Your task to perform on an android device: Go to Yahoo.com Image 0: 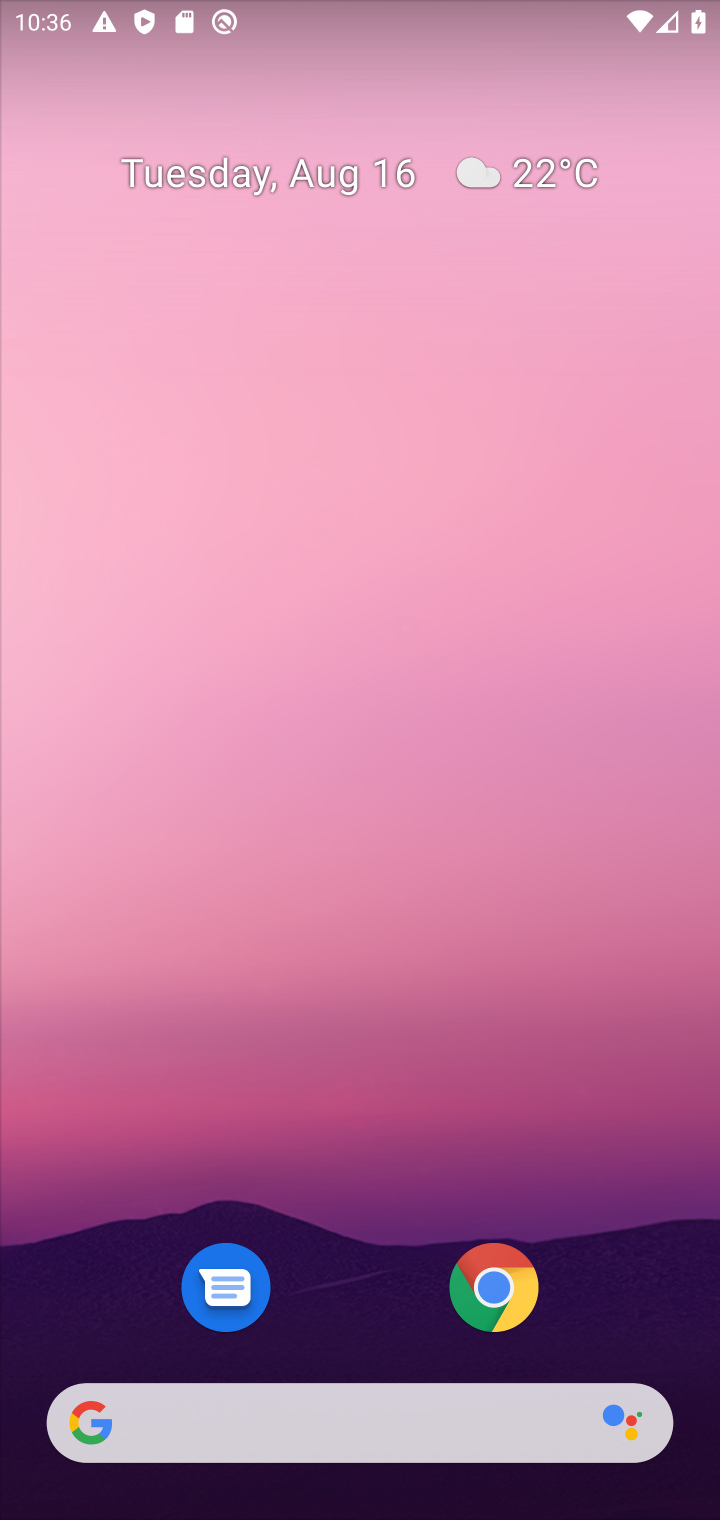
Step 0: click (496, 1296)
Your task to perform on an android device: Go to Yahoo.com Image 1: 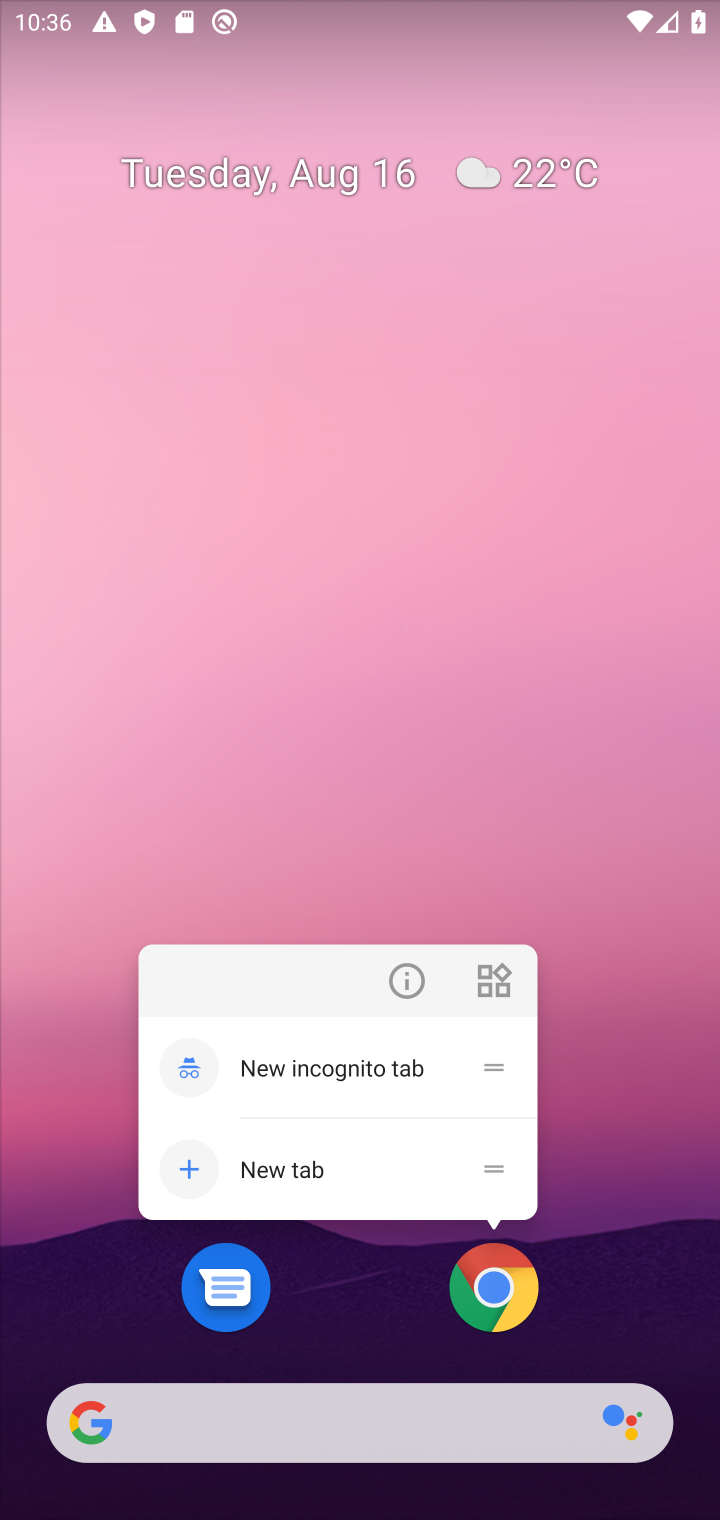
Step 1: click (491, 1295)
Your task to perform on an android device: Go to Yahoo.com Image 2: 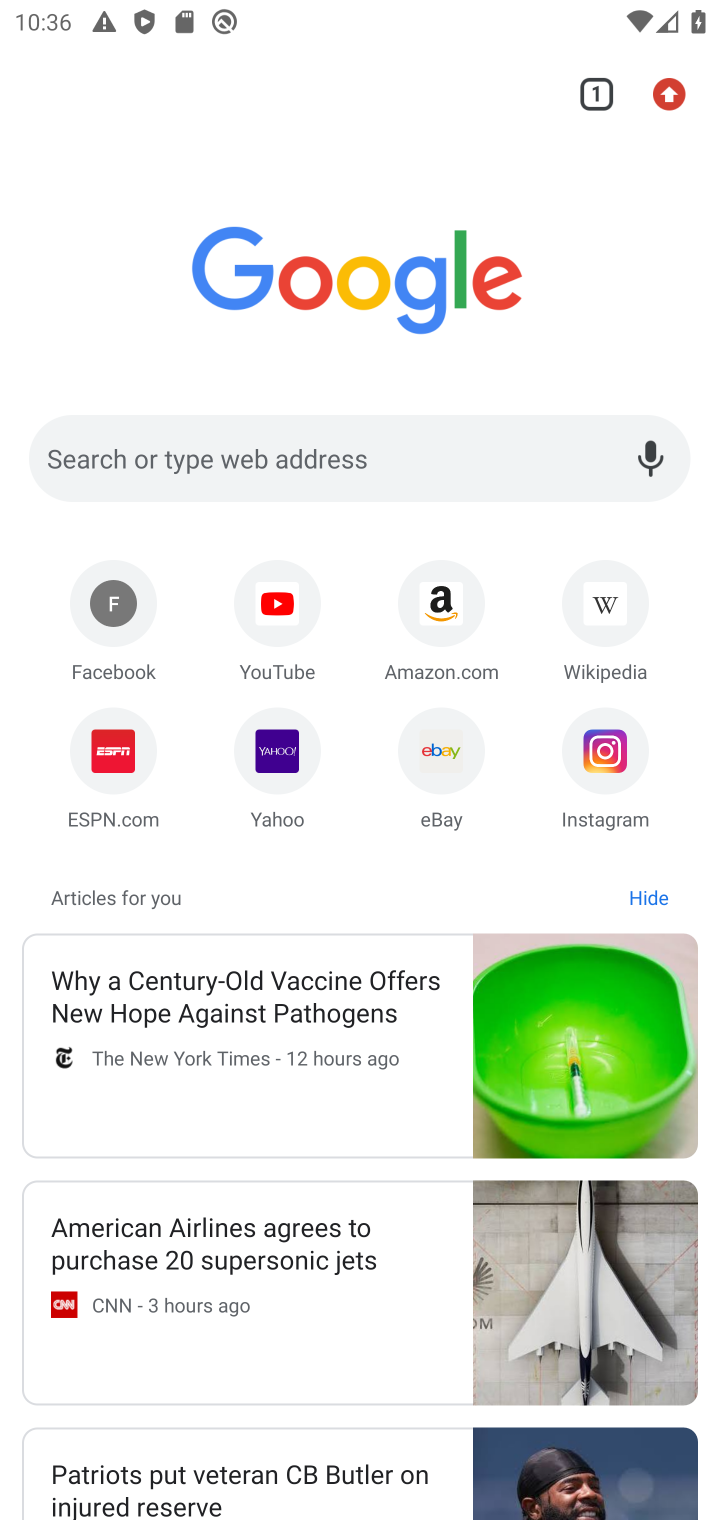
Step 2: click (269, 443)
Your task to perform on an android device: Go to Yahoo.com Image 3: 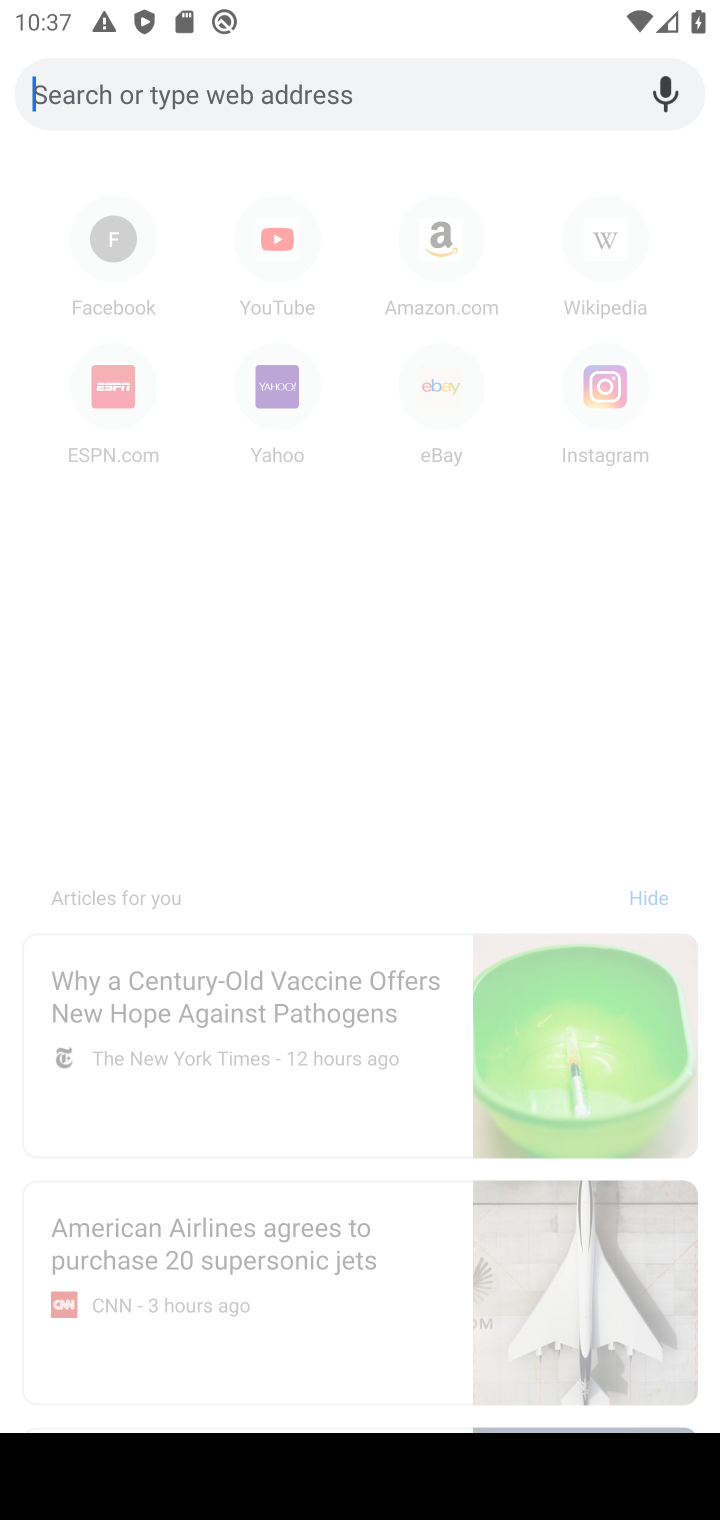
Step 3: type "yahoo.com"
Your task to perform on an android device: Go to Yahoo.com Image 4: 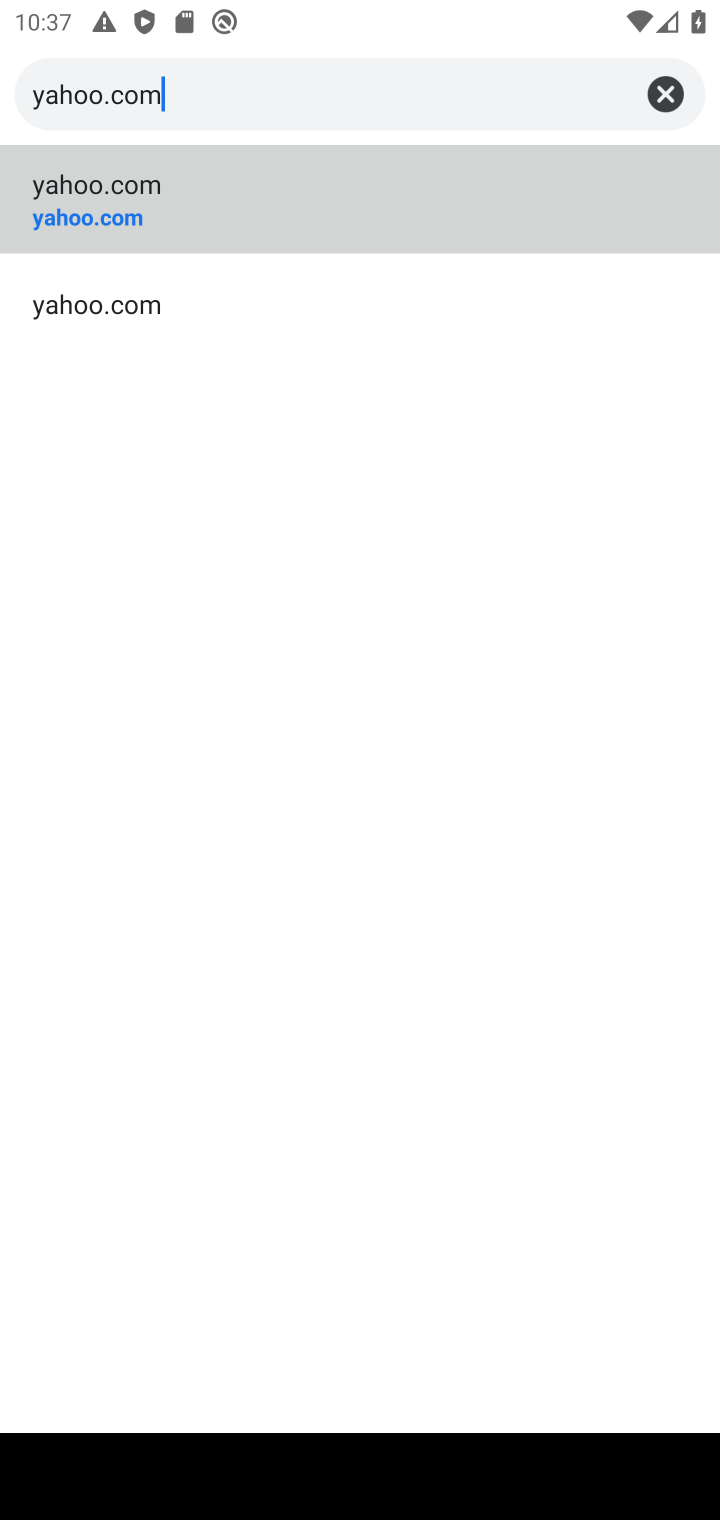
Step 4: click (115, 178)
Your task to perform on an android device: Go to Yahoo.com Image 5: 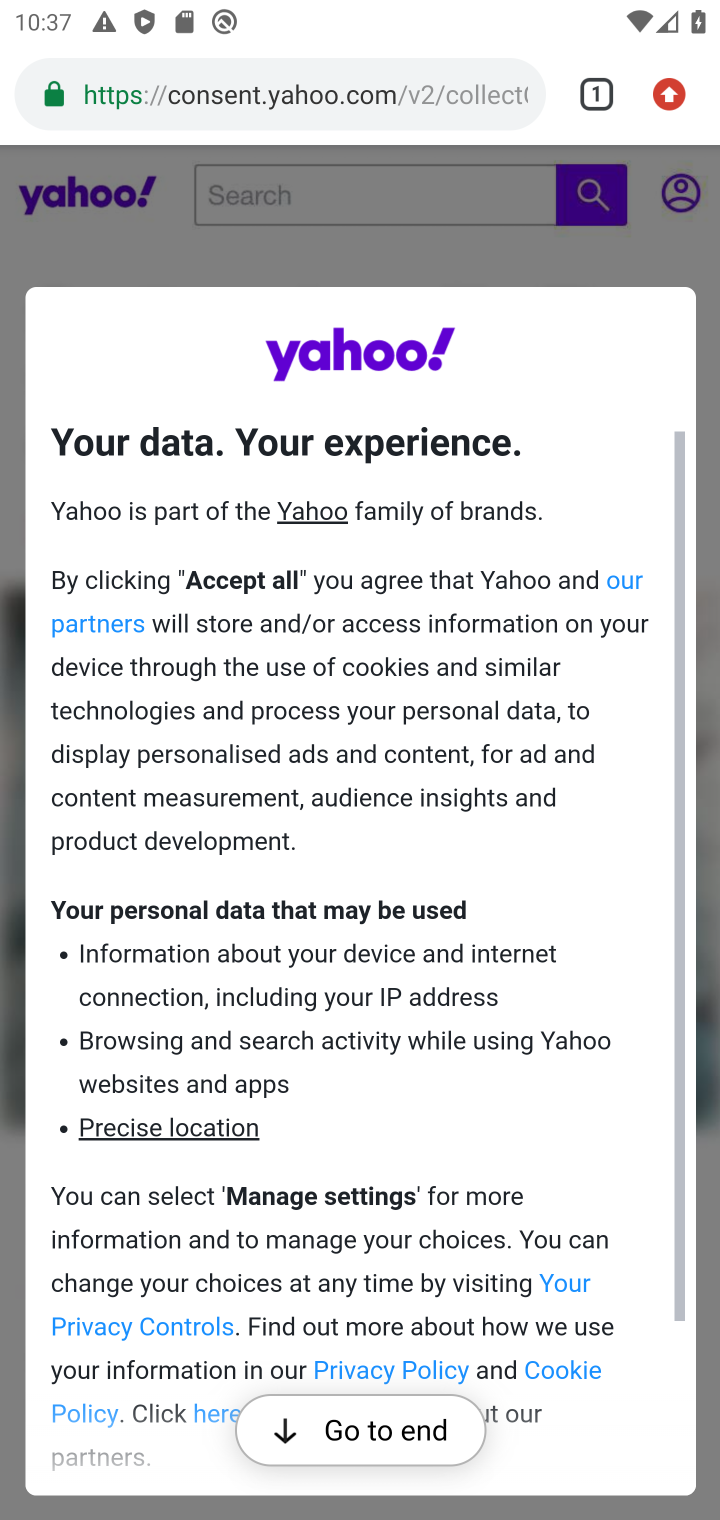
Step 5: click (324, 1421)
Your task to perform on an android device: Go to Yahoo.com Image 6: 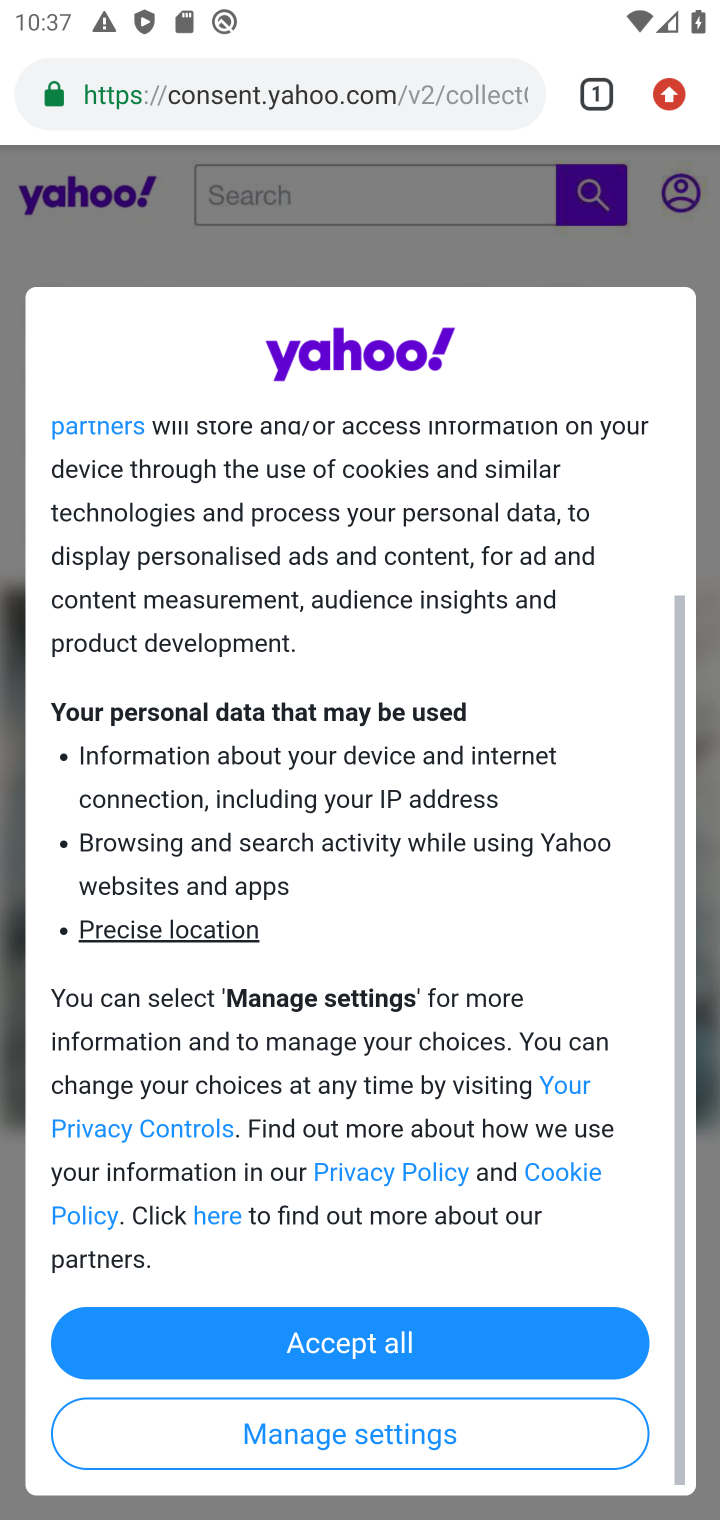
Step 6: click (365, 1340)
Your task to perform on an android device: Go to Yahoo.com Image 7: 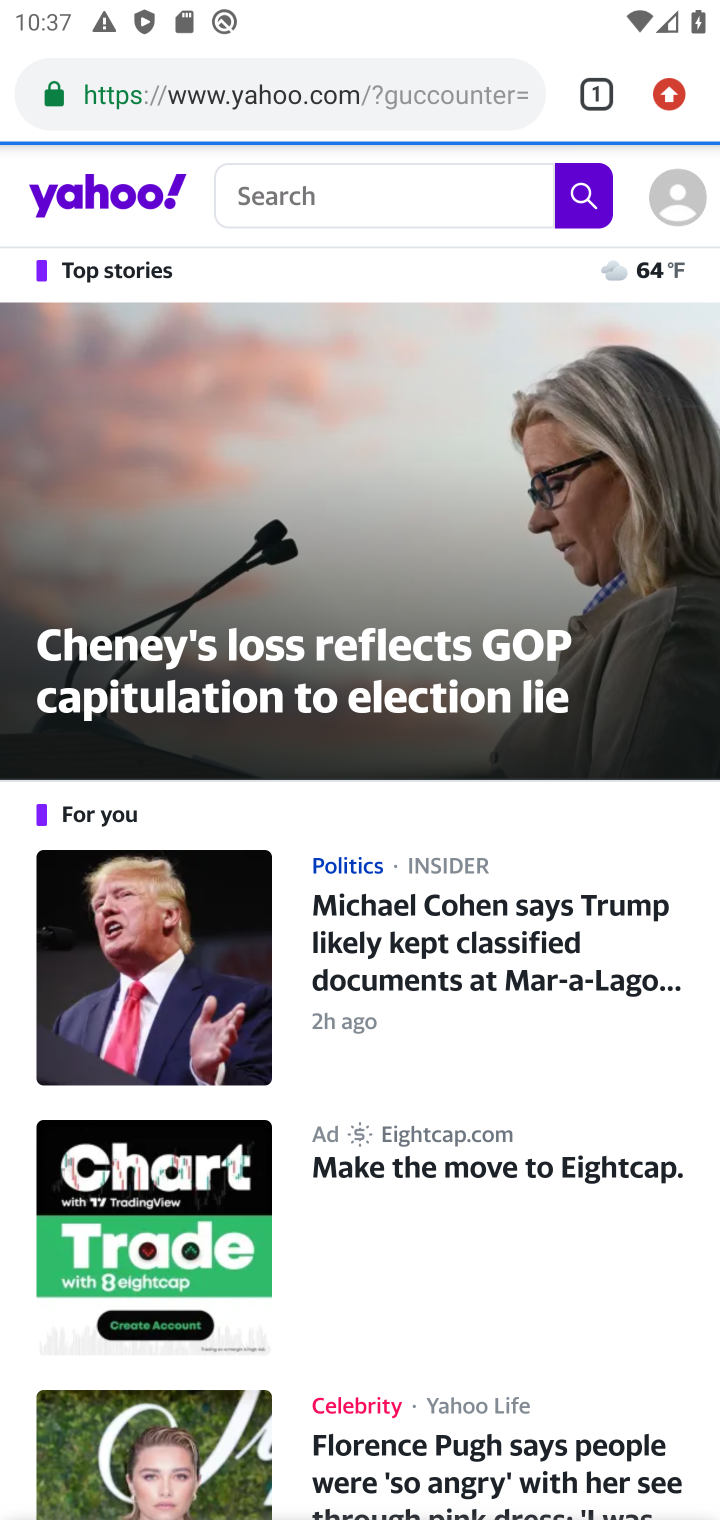
Step 7: task complete